Your task to perform on an android device: Open Android settings Image 0: 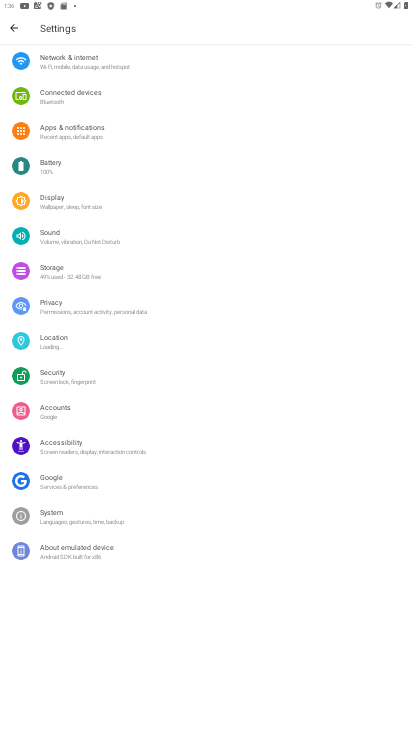
Step 0: press home button
Your task to perform on an android device: Open Android settings Image 1: 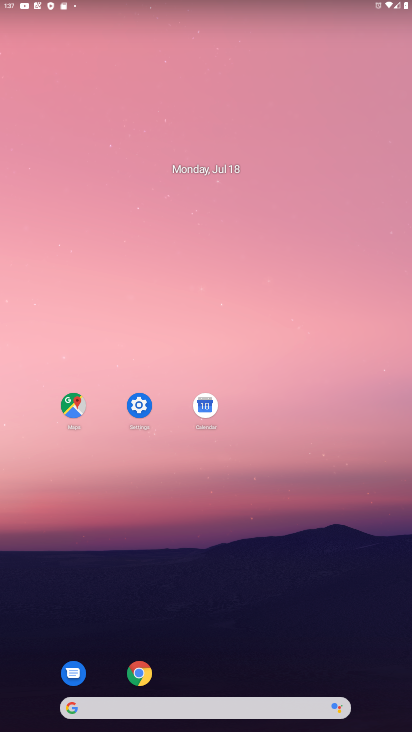
Step 1: click (135, 406)
Your task to perform on an android device: Open Android settings Image 2: 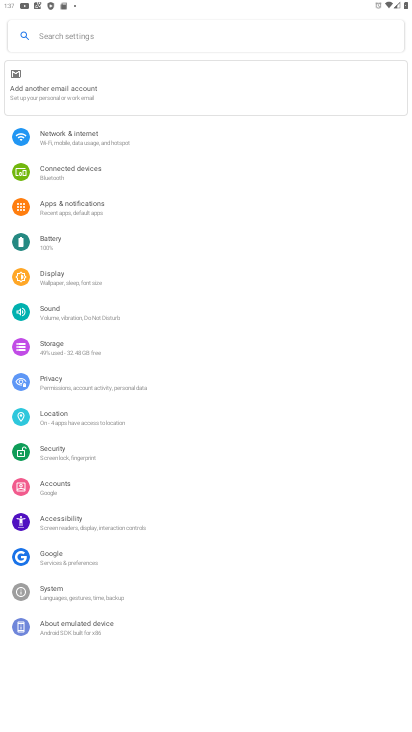
Step 2: task complete